Your task to perform on an android device: open the mobile data screen to see how much data has been used Image 0: 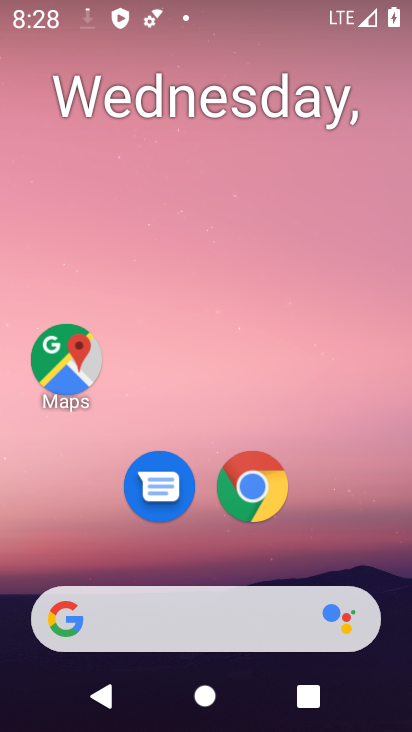
Step 0: drag from (133, 569) to (204, 36)
Your task to perform on an android device: open the mobile data screen to see how much data has been used Image 1: 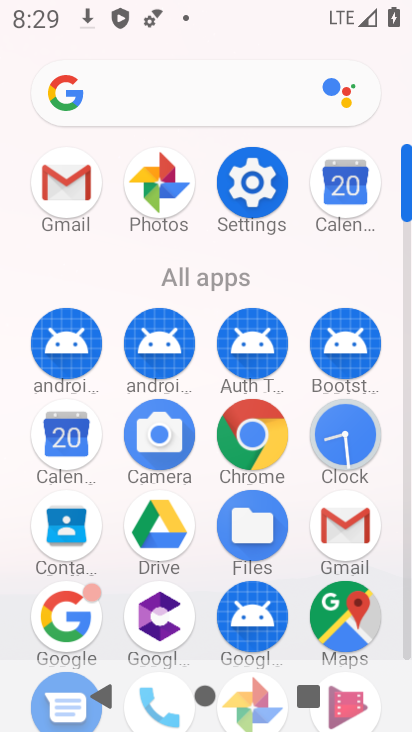
Step 1: click (271, 182)
Your task to perform on an android device: open the mobile data screen to see how much data has been used Image 2: 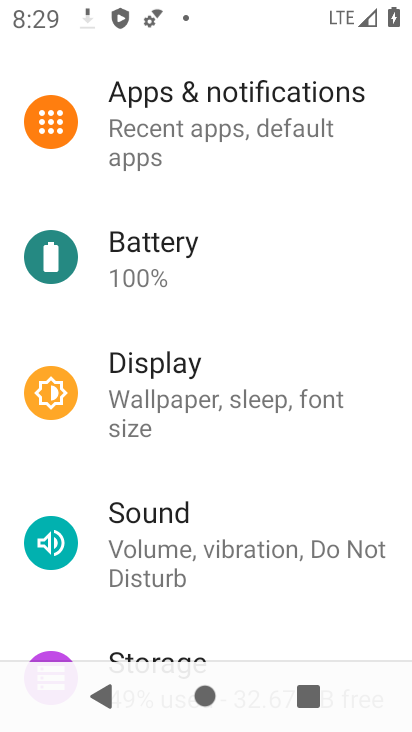
Step 2: drag from (234, 156) to (191, 727)
Your task to perform on an android device: open the mobile data screen to see how much data has been used Image 3: 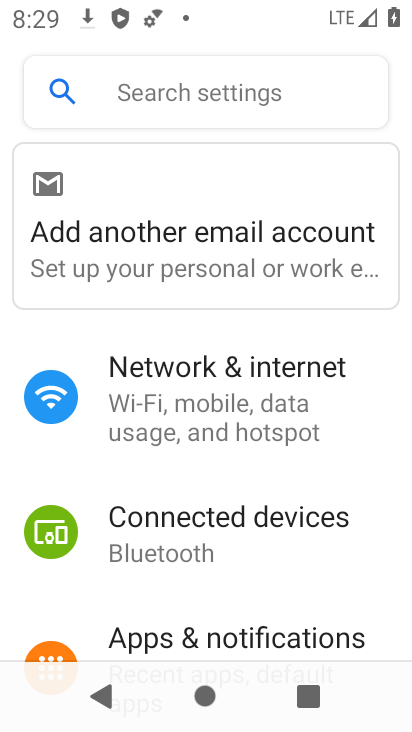
Step 3: drag from (213, 585) to (276, 408)
Your task to perform on an android device: open the mobile data screen to see how much data has been used Image 4: 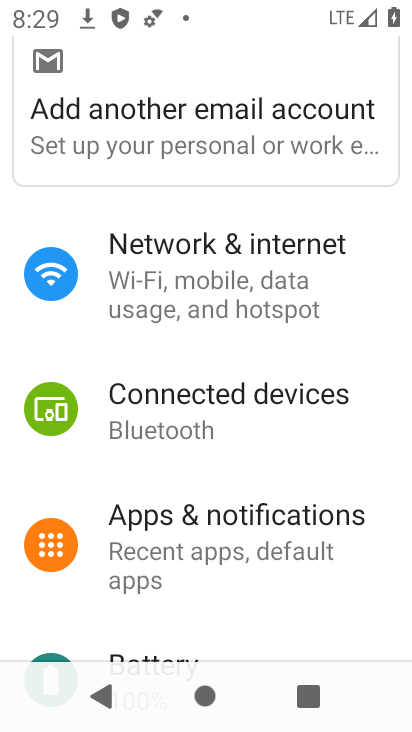
Step 4: drag from (254, 603) to (295, 459)
Your task to perform on an android device: open the mobile data screen to see how much data has been used Image 5: 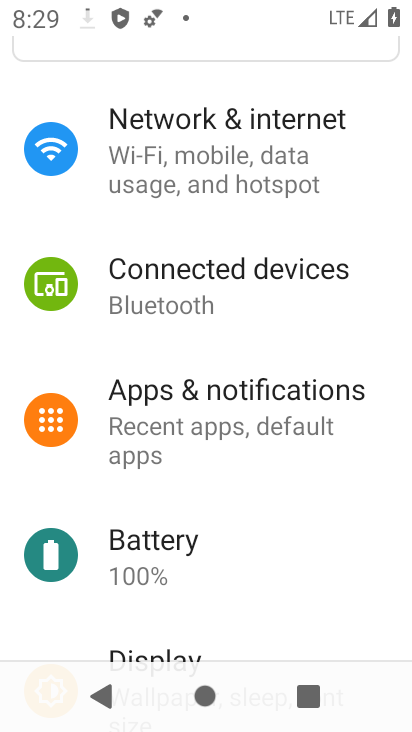
Step 5: click (230, 167)
Your task to perform on an android device: open the mobile data screen to see how much data has been used Image 6: 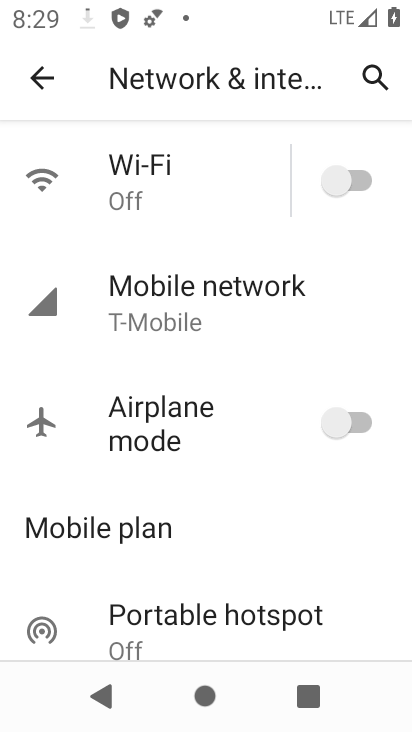
Step 6: click (122, 284)
Your task to perform on an android device: open the mobile data screen to see how much data has been used Image 7: 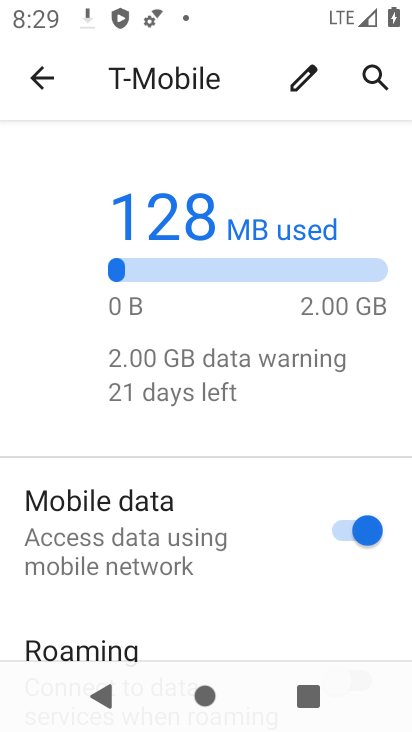
Step 7: drag from (164, 621) to (249, 149)
Your task to perform on an android device: open the mobile data screen to see how much data has been used Image 8: 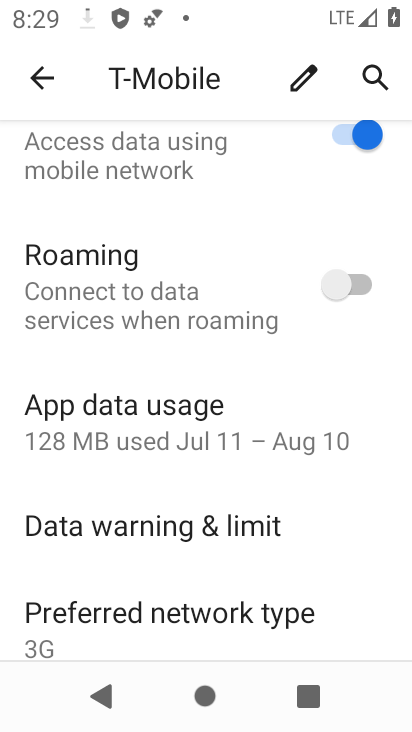
Step 8: click (151, 422)
Your task to perform on an android device: open the mobile data screen to see how much data has been used Image 9: 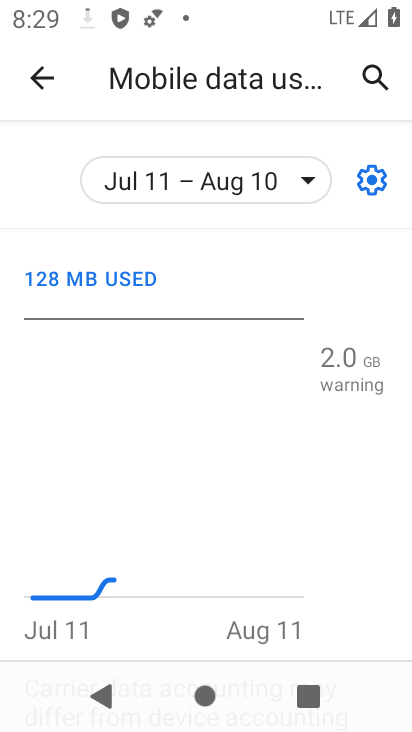
Step 9: task complete